Your task to perform on an android device: turn on the 12-hour format for clock Image 0: 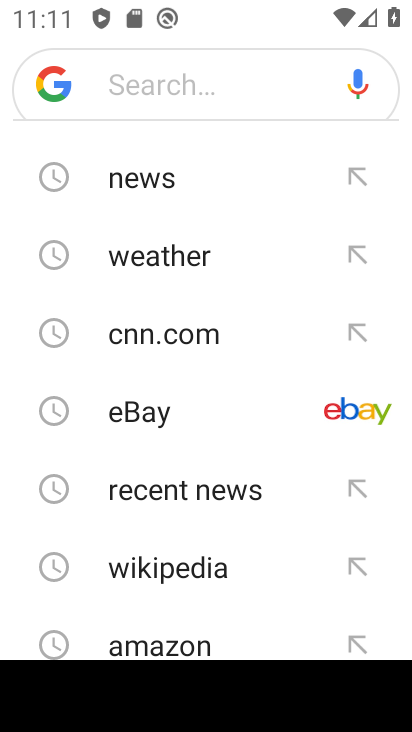
Step 0: press home button
Your task to perform on an android device: turn on the 12-hour format for clock Image 1: 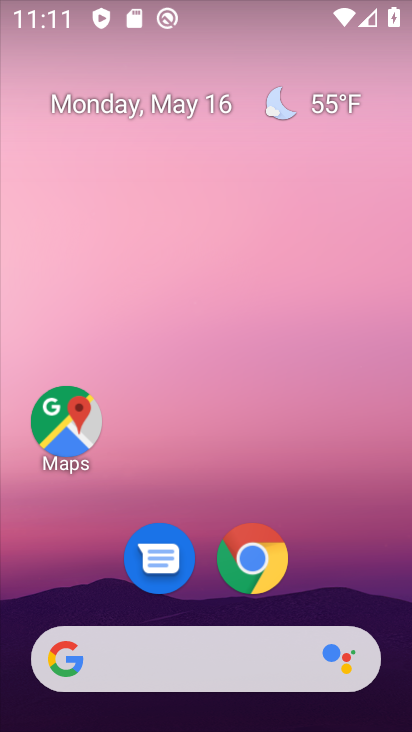
Step 1: drag from (330, 525) to (341, 132)
Your task to perform on an android device: turn on the 12-hour format for clock Image 2: 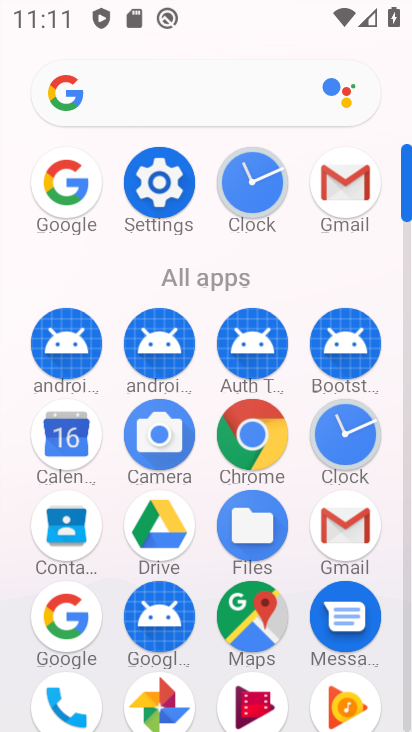
Step 2: click (343, 434)
Your task to perform on an android device: turn on the 12-hour format for clock Image 3: 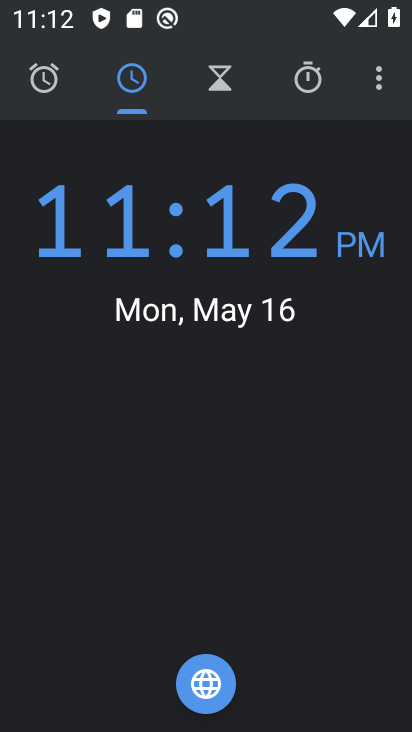
Step 3: click (371, 74)
Your task to perform on an android device: turn on the 12-hour format for clock Image 4: 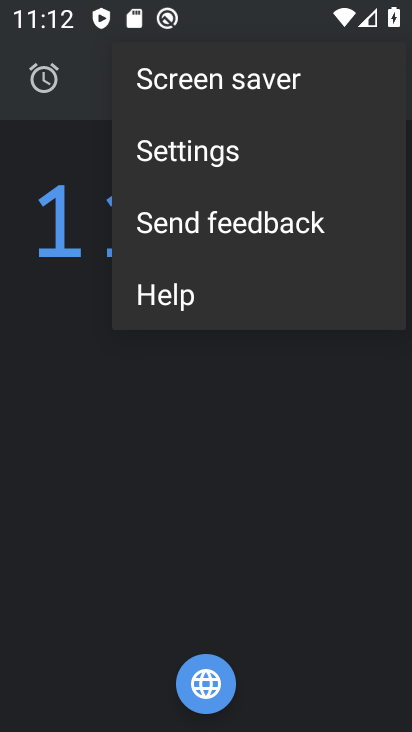
Step 4: click (245, 157)
Your task to perform on an android device: turn on the 12-hour format for clock Image 5: 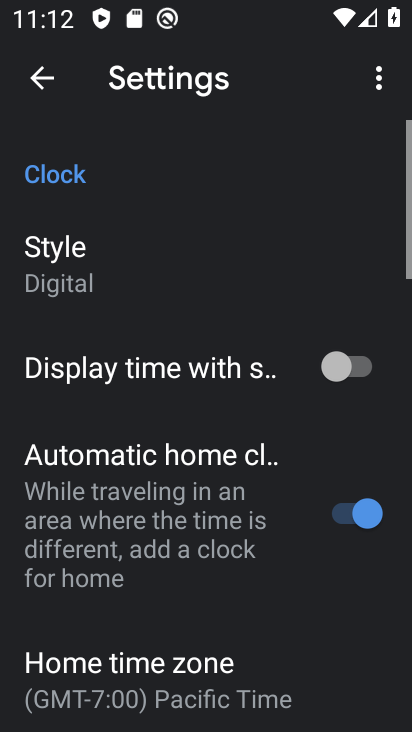
Step 5: drag from (202, 547) to (226, 248)
Your task to perform on an android device: turn on the 12-hour format for clock Image 6: 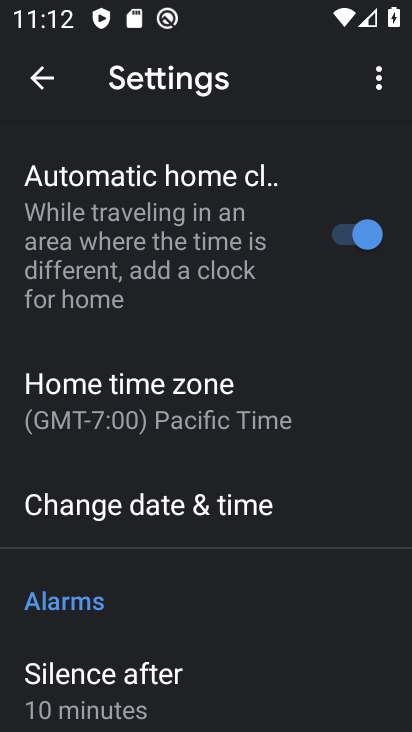
Step 6: click (209, 500)
Your task to perform on an android device: turn on the 12-hour format for clock Image 7: 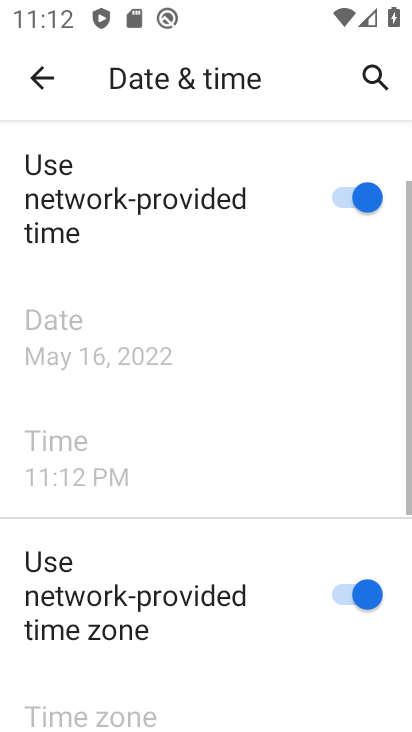
Step 7: task complete